Your task to perform on an android device: check android version Image 0: 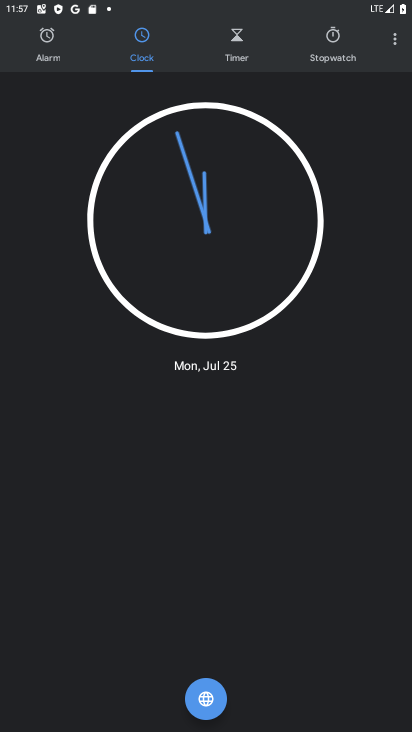
Step 0: press home button
Your task to perform on an android device: check android version Image 1: 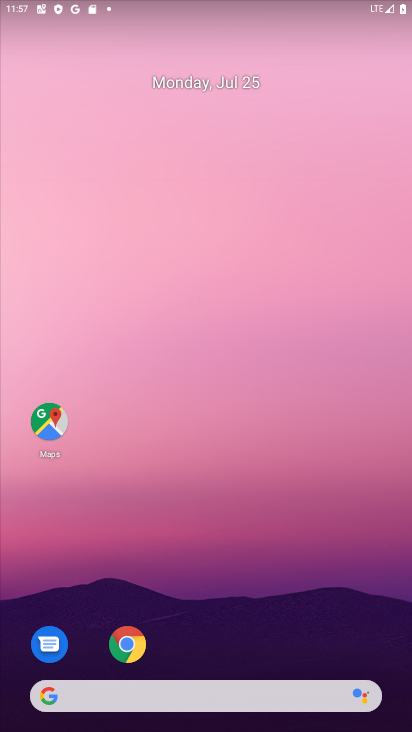
Step 1: drag from (238, 665) to (227, 24)
Your task to perform on an android device: check android version Image 2: 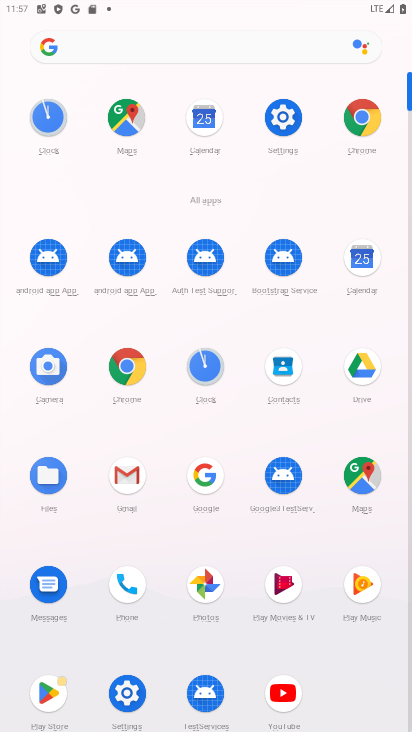
Step 2: click (276, 116)
Your task to perform on an android device: check android version Image 3: 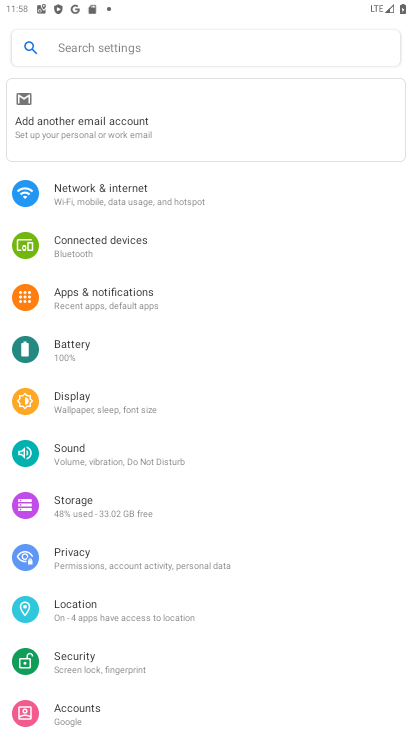
Step 3: drag from (245, 604) to (219, 64)
Your task to perform on an android device: check android version Image 4: 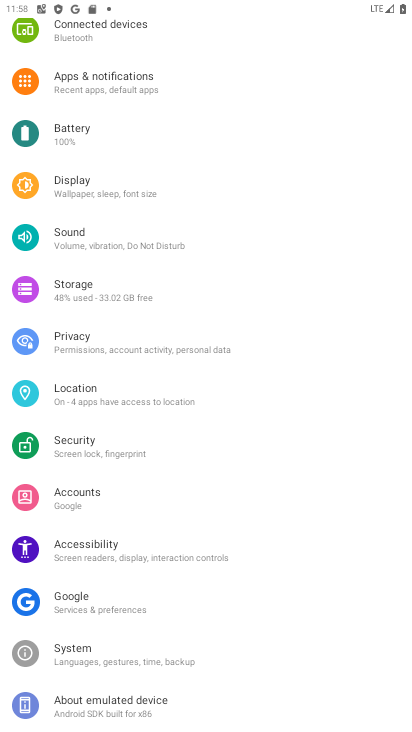
Step 4: click (120, 711)
Your task to perform on an android device: check android version Image 5: 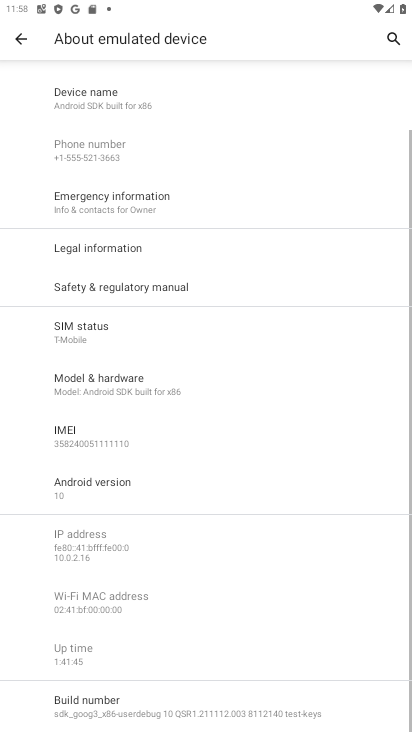
Step 5: click (75, 488)
Your task to perform on an android device: check android version Image 6: 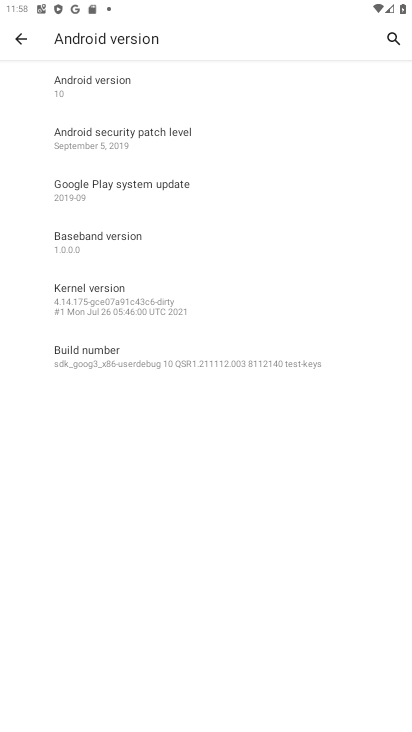
Step 6: task complete